Your task to perform on an android device: add a contact Image 0: 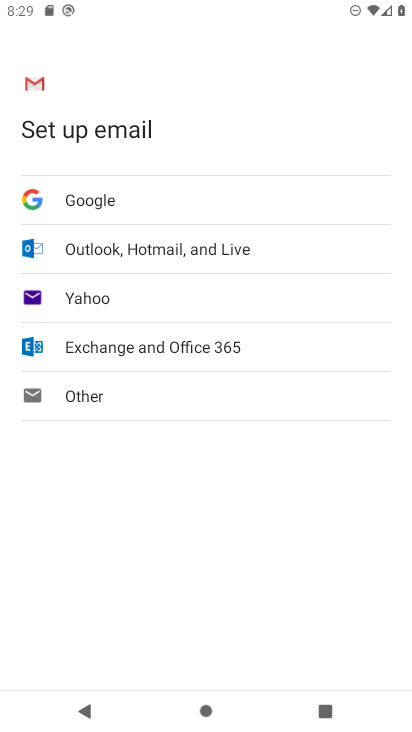
Step 0: press home button
Your task to perform on an android device: add a contact Image 1: 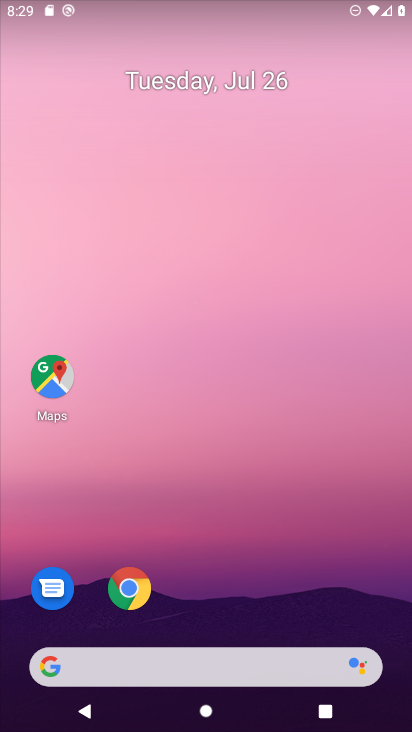
Step 1: drag from (214, 615) to (225, 0)
Your task to perform on an android device: add a contact Image 2: 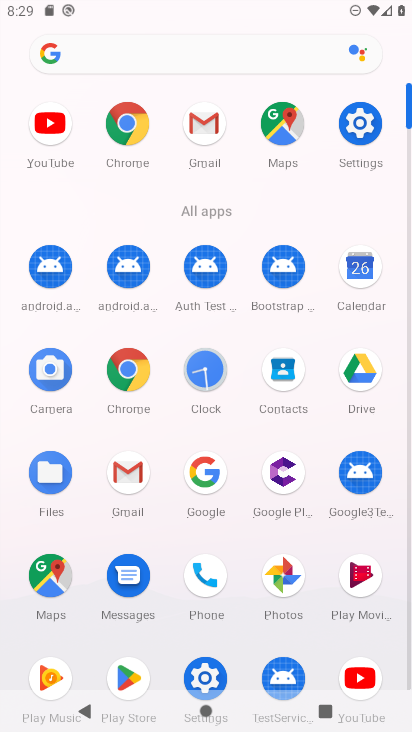
Step 2: click (281, 373)
Your task to perform on an android device: add a contact Image 3: 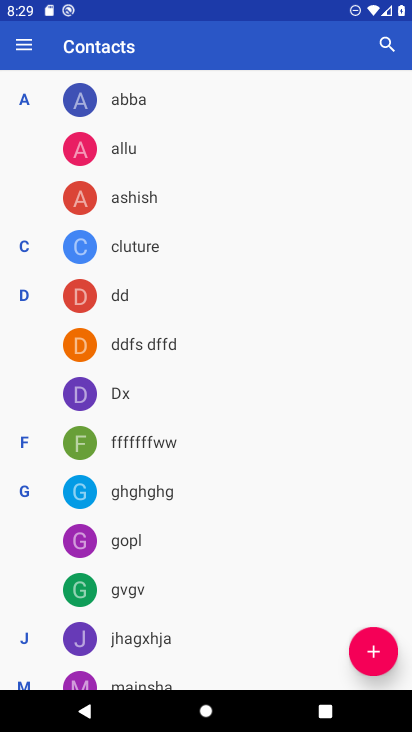
Step 3: click (371, 653)
Your task to perform on an android device: add a contact Image 4: 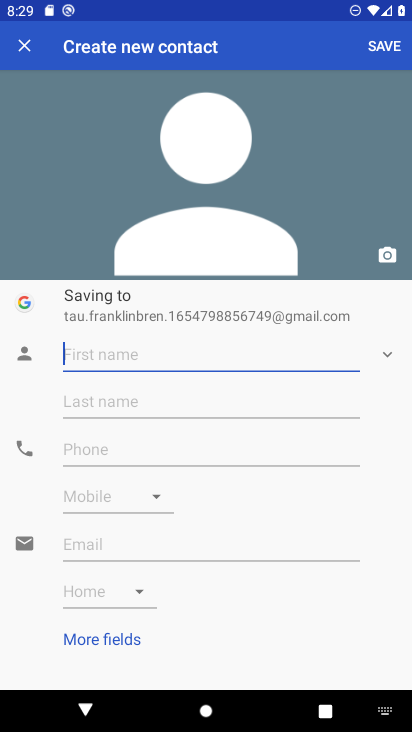
Step 4: click (155, 349)
Your task to perform on an android device: add a contact Image 5: 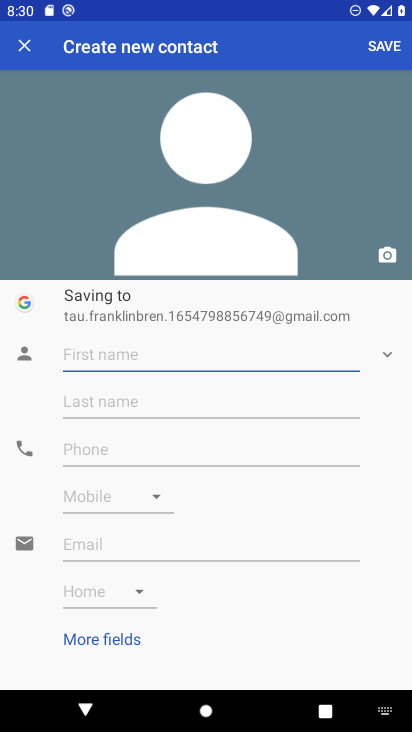
Step 5: type "yamini"
Your task to perform on an android device: add a contact Image 6: 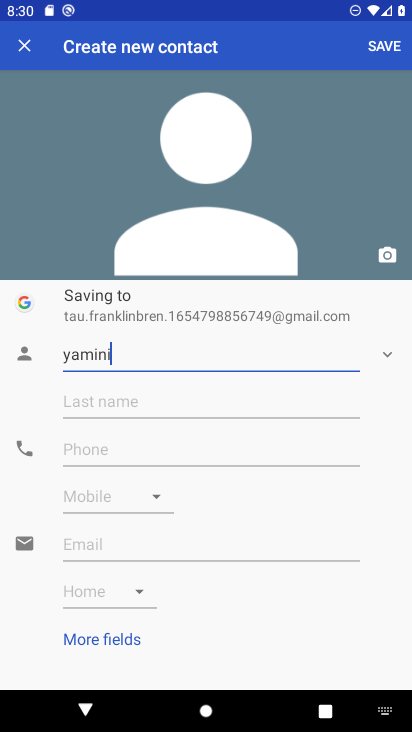
Step 6: click (228, 384)
Your task to perform on an android device: add a contact Image 7: 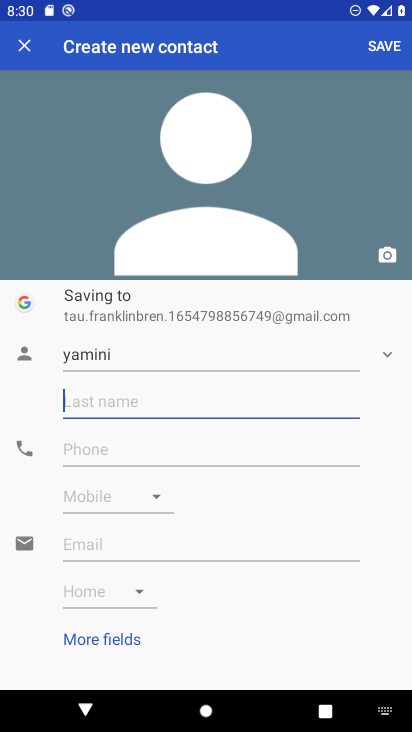
Step 7: click (186, 432)
Your task to perform on an android device: add a contact Image 8: 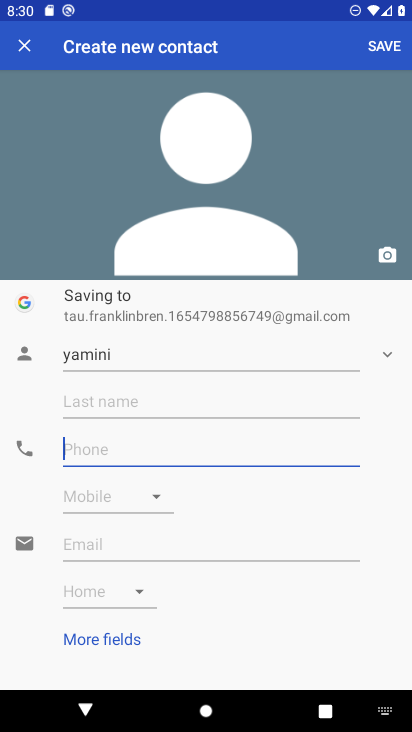
Step 8: type "865456787765"
Your task to perform on an android device: add a contact Image 9: 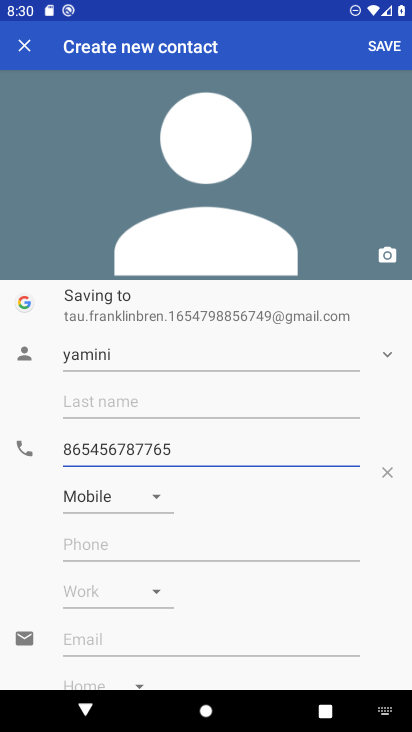
Step 9: click (382, 42)
Your task to perform on an android device: add a contact Image 10: 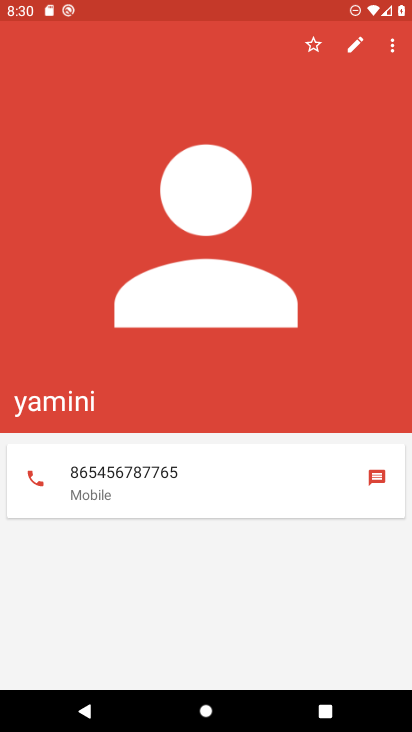
Step 10: task complete